Your task to perform on an android device: Set the phone to "Do not disturb". Image 0: 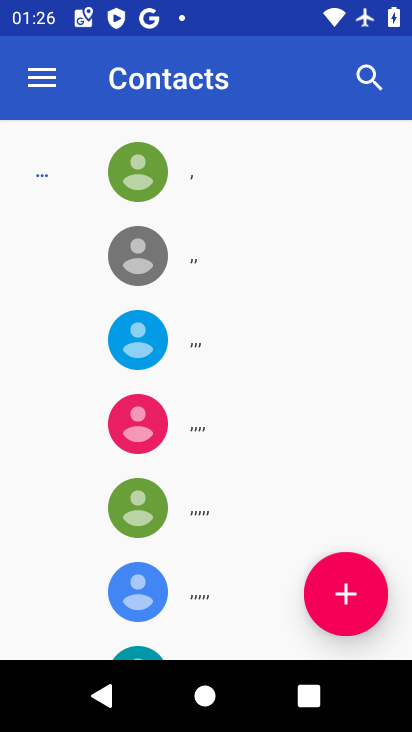
Step 0: press home button
Your task to perform on an android device: Set the phone to "Do not disturb". Image 1: 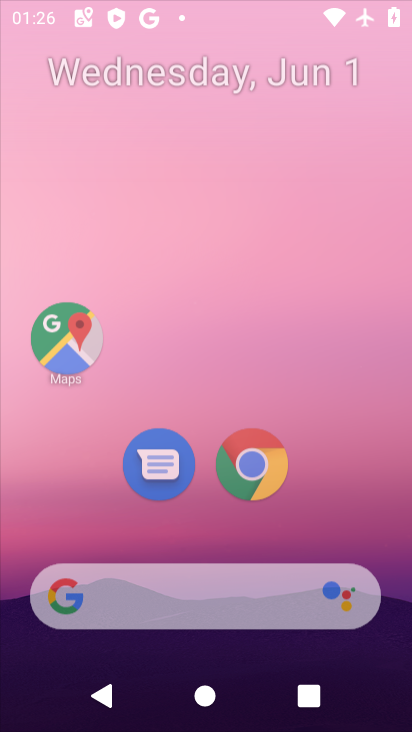
Step 1: drag from (186, 0) to (142, 493)
Your task to perform on an android device: Set the phone to "Do not disturb". Image 2: 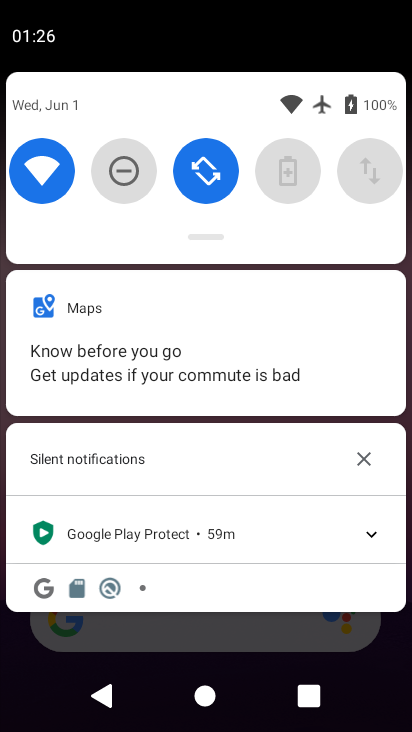
Step 2: click (119, 165)
Your task to perform on an android device: Set the phone to "Do not disturb". Image 3: 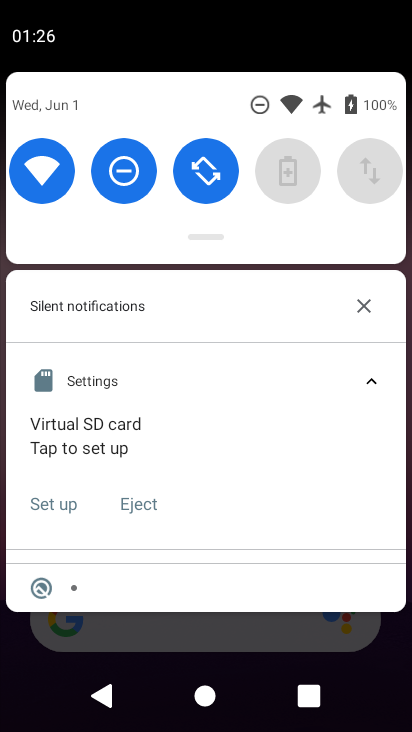
Step 3: click (116, 183)
Your task to perform on an android device: Set the phone to "Do not disturb". Image 4: 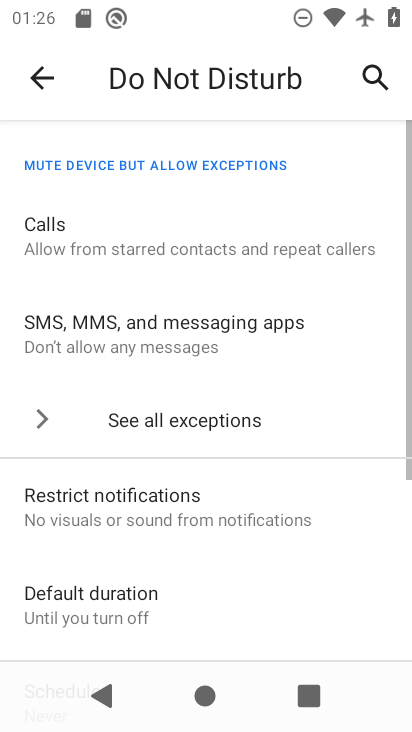
Step 4: task complete